Your task to perform on an android device: set the stopwatch Image 0: 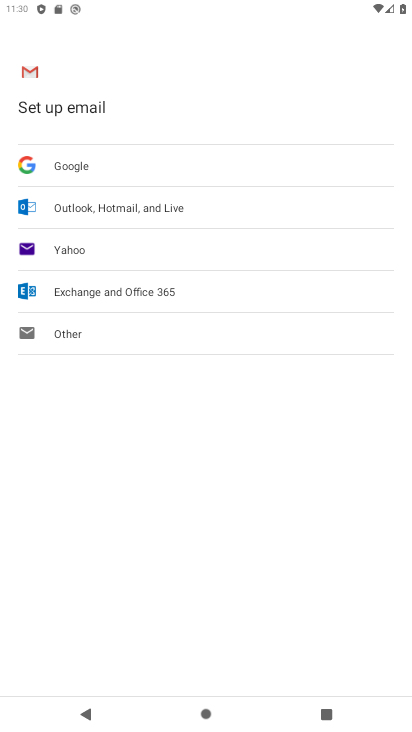
Step 0: press home button
Your task to perform on an android device: set the stopwatch Image 1: 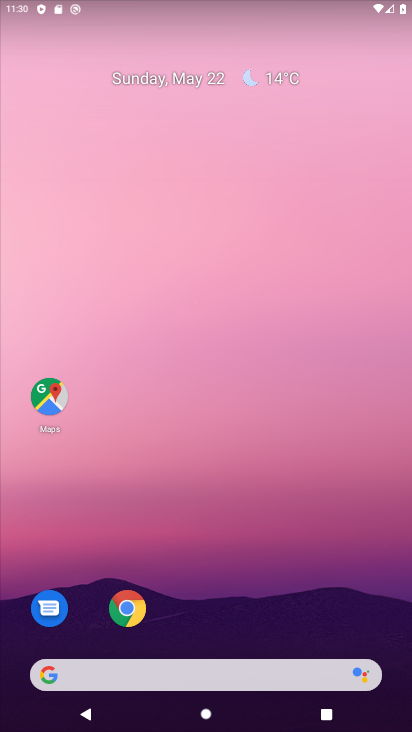
Step 1: drag from (260, 630) to (249, 224)
Your task to perform on an android device: set the stopwatch Image 2: 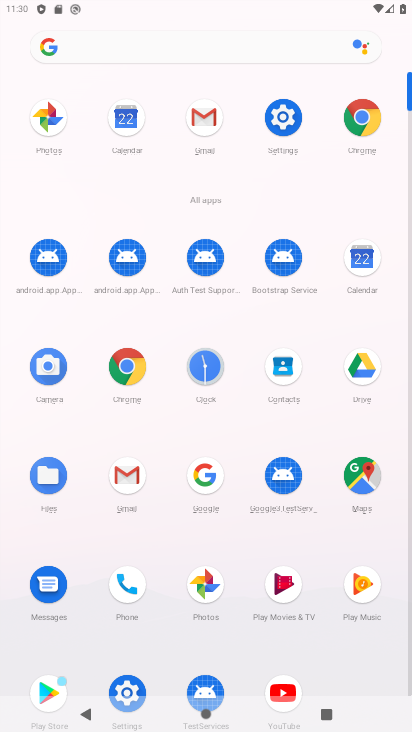
Step 2: click (217, 360)
Your task to perform on an android device: set the stopwatch Image 3: 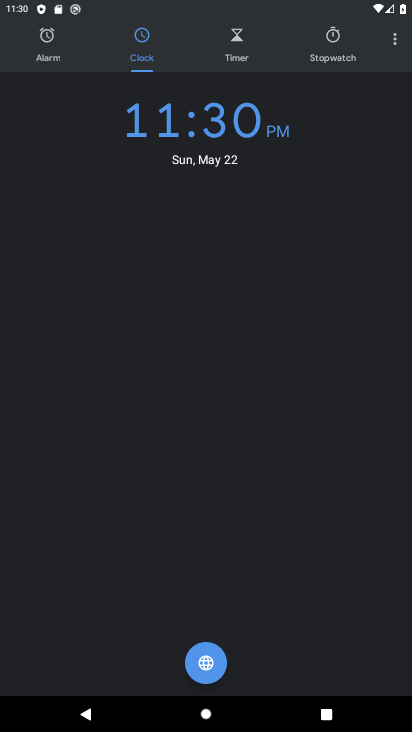
Step 3: click (343, 59)
Your task to perform on an android device: set the stopwatch Image 4: 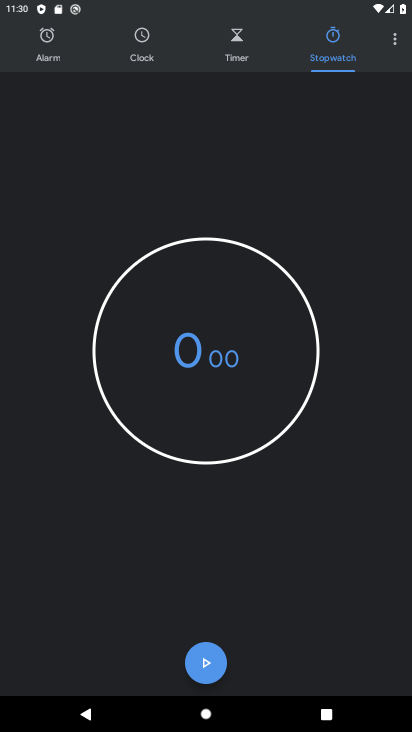
Step 4: click (204, 667)
Your task to perform on an android device: set the stopwatch Image 5: 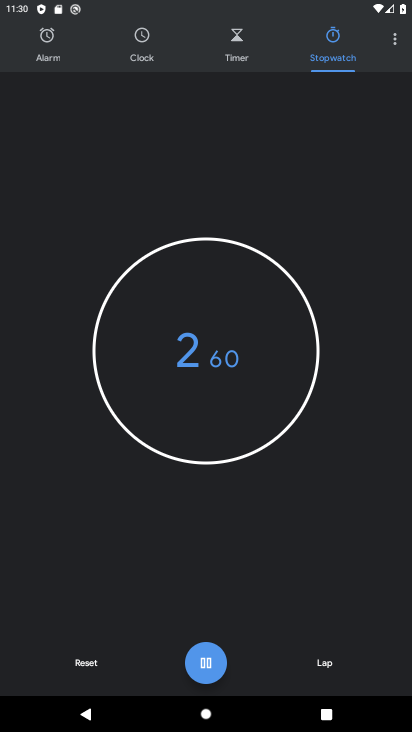
Step 5: task complete